Your task to perform on an android device: open chrome and create a bookmark for the current page Image 0: 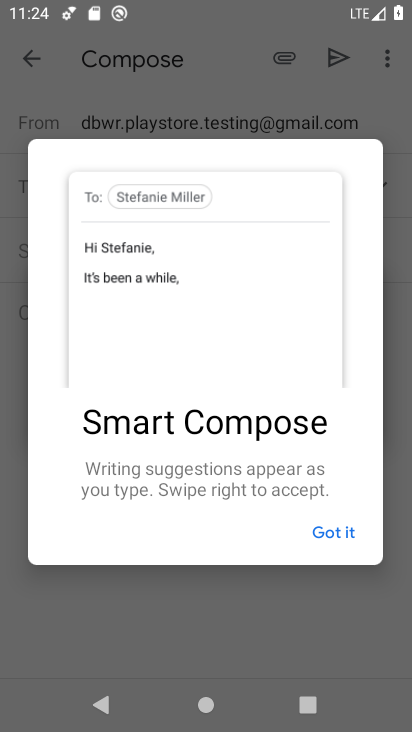
Step 0: press home button
Your task to perform on an android device: open chrome and create a bookmark for the current page Image 1: 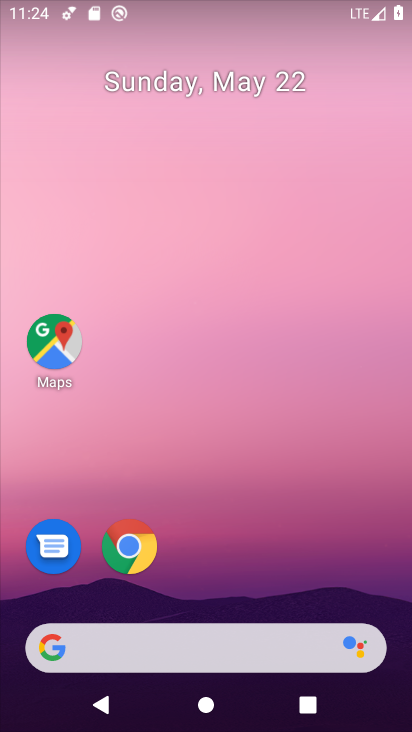
Step 1: drag from (173, 607) to (186, 133)
Your task to perform on an android device: open chrome and create a bookmark for the current page Image 2: 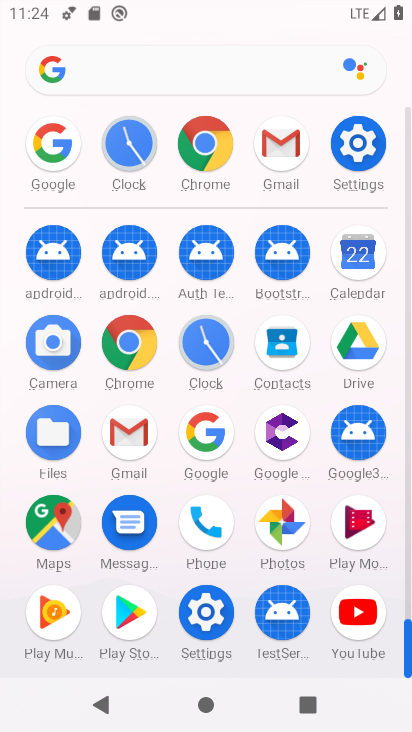
Step 2: click (222, 147)
Your task to perform on an android device: open chrome and create a bookmark for the current page Image 3: 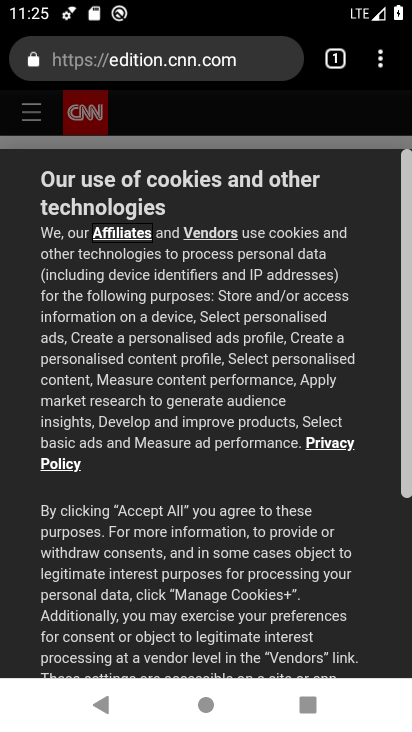
Step 3: click (397, 63)
Your task to perform on an android device: open chrome and create a bookmark for the current page Image 4: 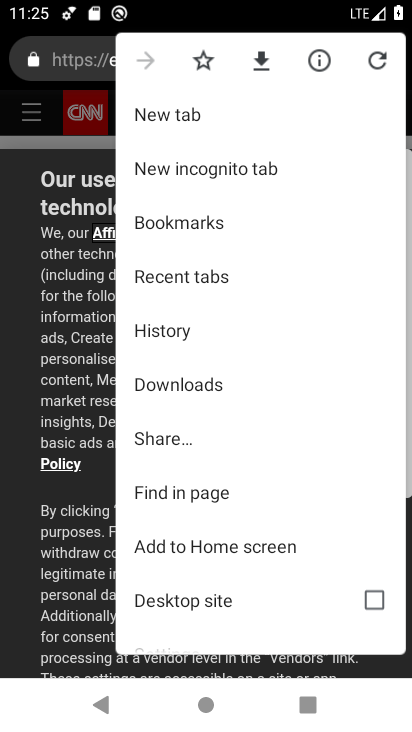
Step 4: click (207, 60)
Your task to perform on an android device: open chrome and create a bookmark for the current page Image 5: 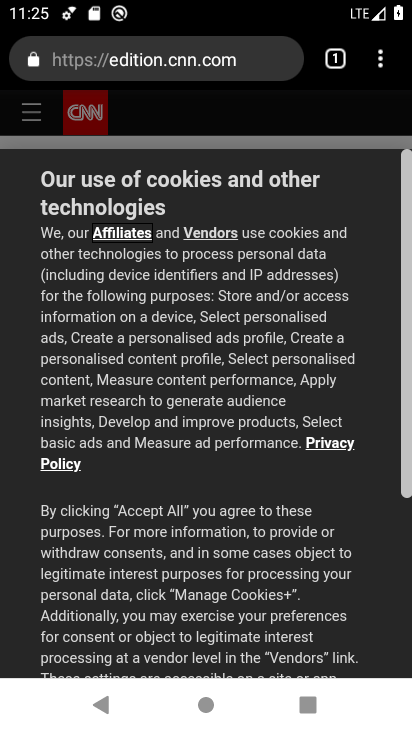
Step 5: task complete